Your task to perform on an android device: open app "YouTube Kids" (install if not already installed) and go to login screen Image 0: 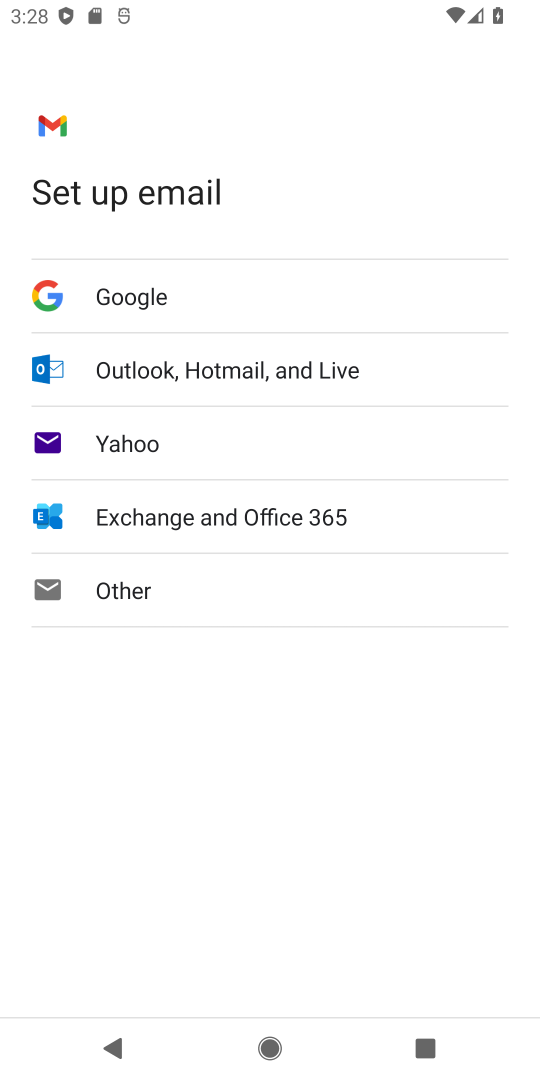
Step 0: press home button
Your task to perform on an android device: open app "YouTube Kids" (install if not already installed) and go to login screen Image 1: 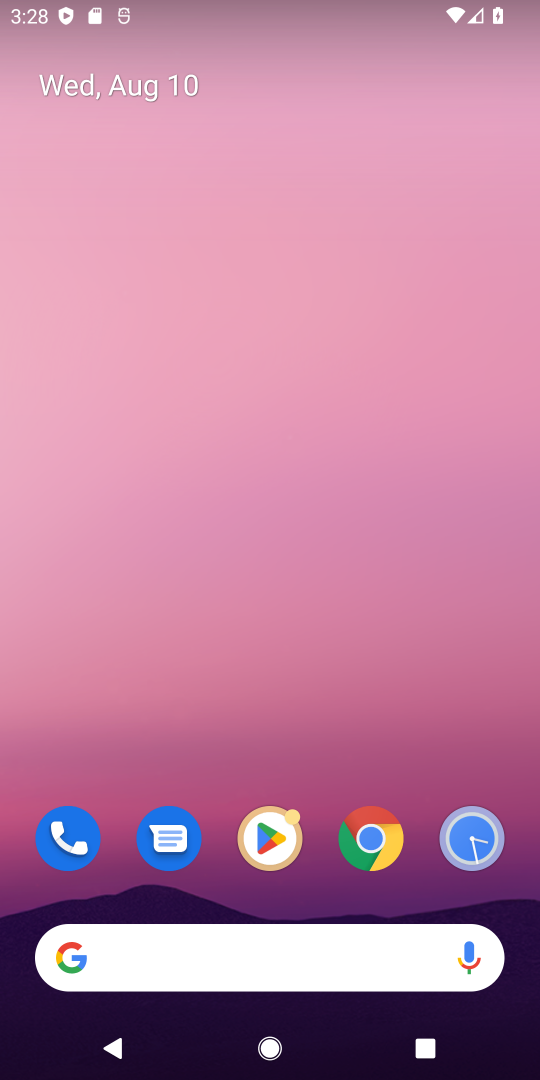
Step 1: click (270, 831)
Your task to perform on an android device: open app "YouTube Kids" (install if not already installed) and go to login screen Image 2: 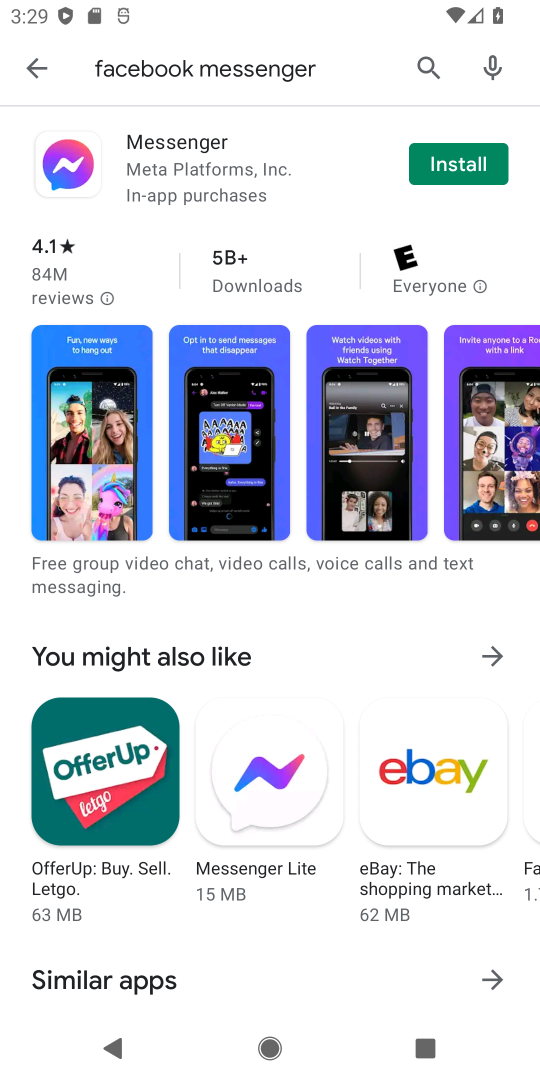
Step 2: click (425, 65)
Your task to perform on an android device: open app "YouTube Kids" (install if not already installed) and go to login screen Image 3: 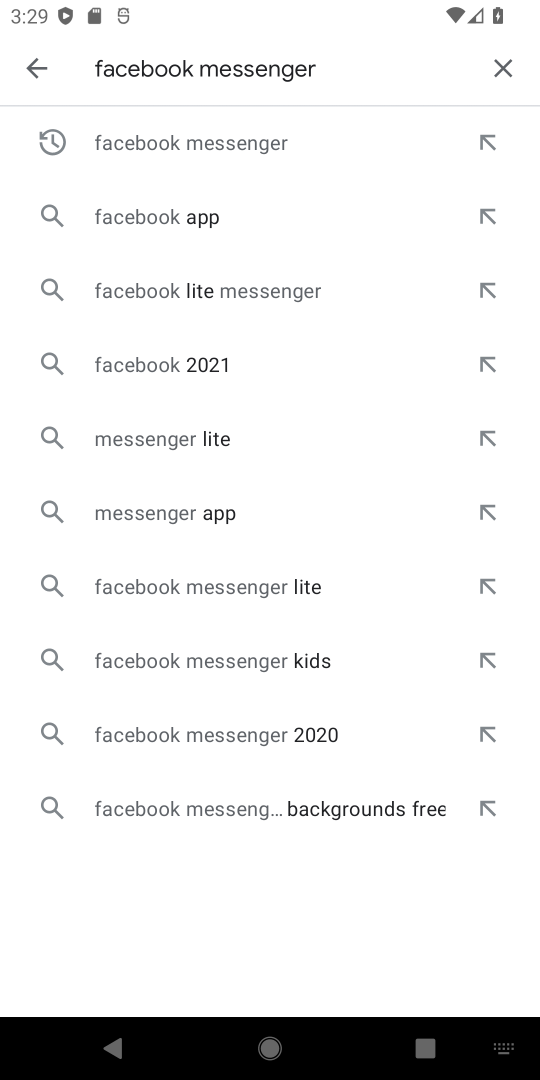
Step 3: click (502, 62)
Your task to perform on an android device: open app "YouTube Kids" (install if not already installed) and go to login screen Image 4: 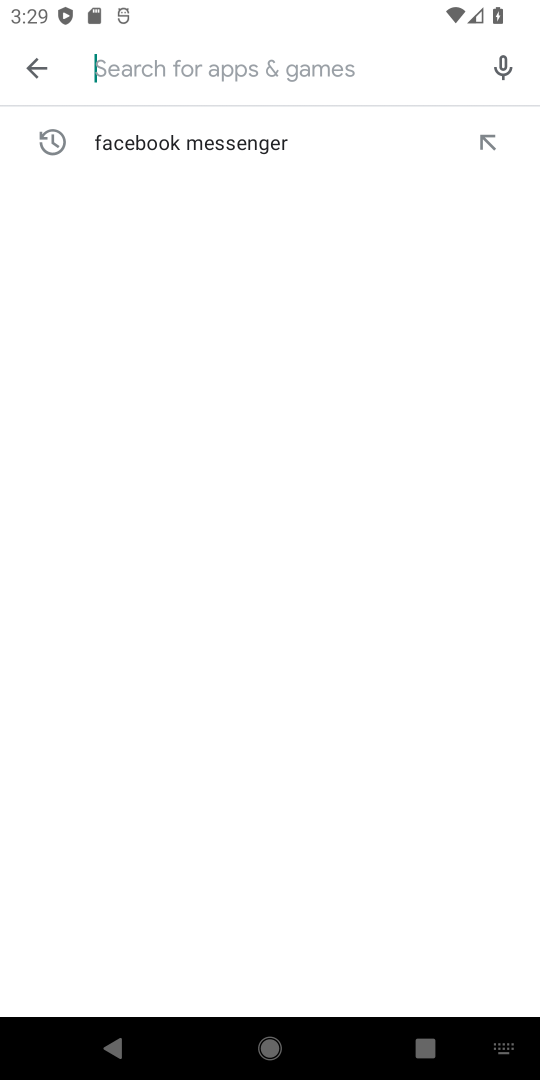
Step 4: type "YouTube Kids"
Your task to perform on an android device: open app "YouTube Kids" (install if not already installed) and go to login screen Image 5: 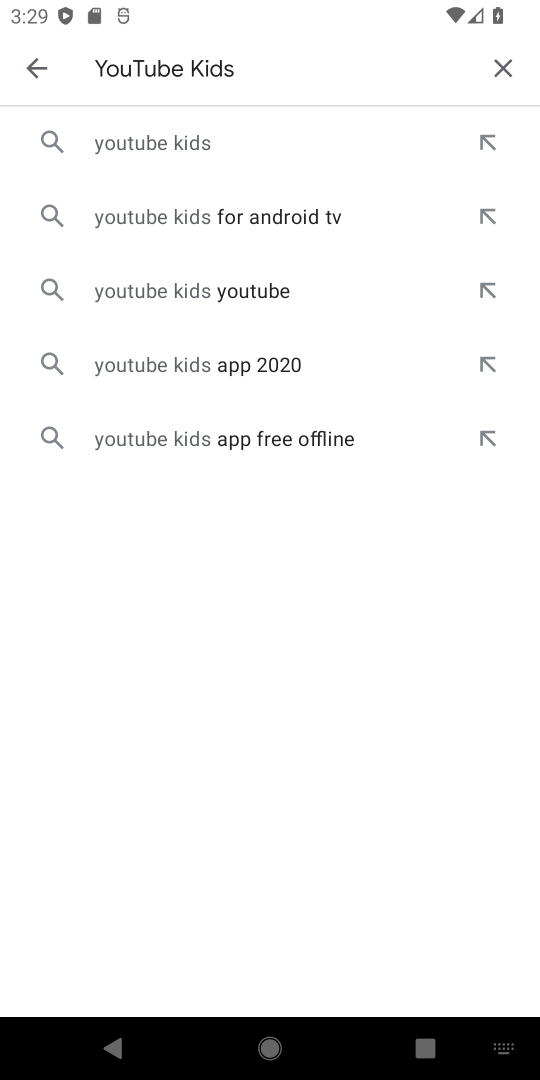
Step 5: click (175, 145)
Your task to perform on an android device: open app "YouTube Kids" (install if not already installed) and go to login screen Image 6: 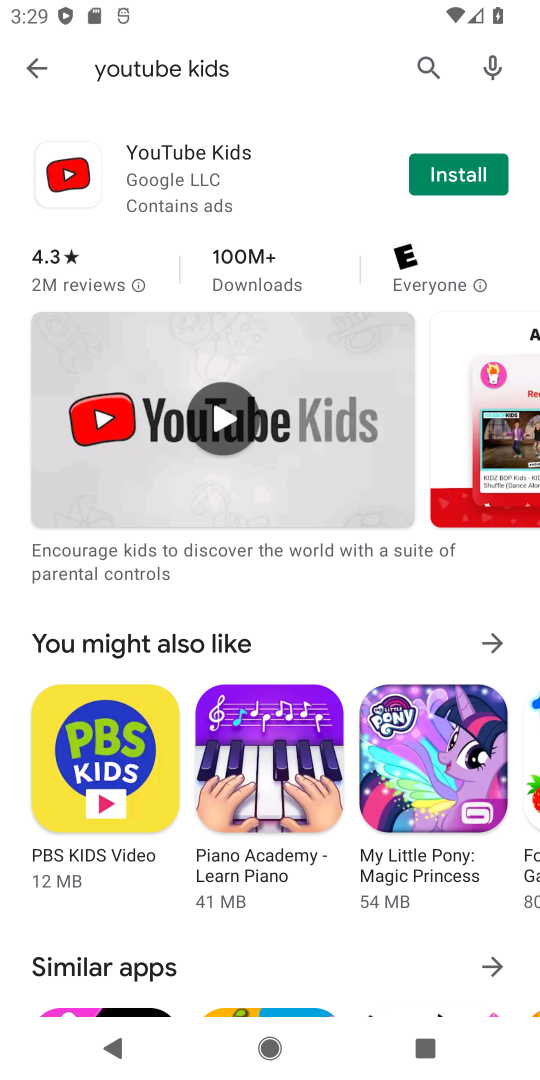
Step 6: click (461, 171)
Your task to perform on an android device: open app "YouTube Kids" (install if not already installed) and go to login screen Image 7: 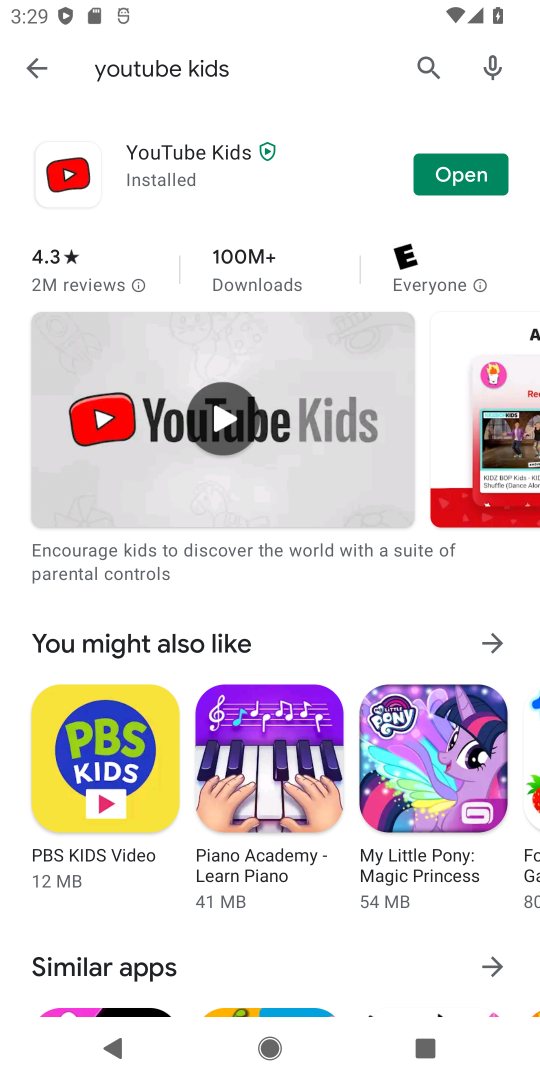
Step 7: click (469, 176)
Your task to perform on an android device: open app "YouTube Kids" (install if not already installed) and go to login screen Image 8: 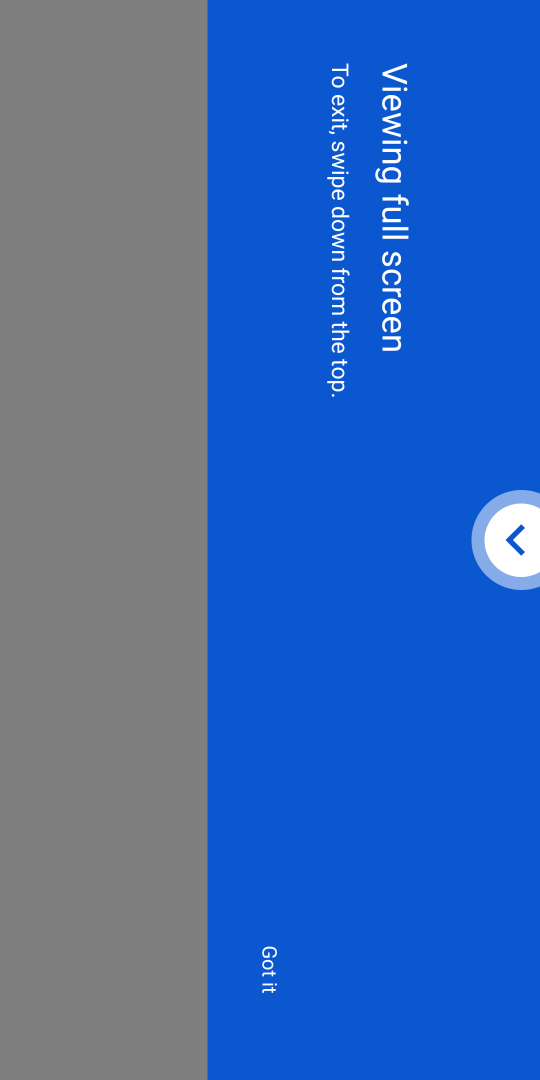
Step 8: click (262, 973)
Your task to perform on an android device: open app "YouTube Kids" (install if not already installed) and go to login screen Image 9: 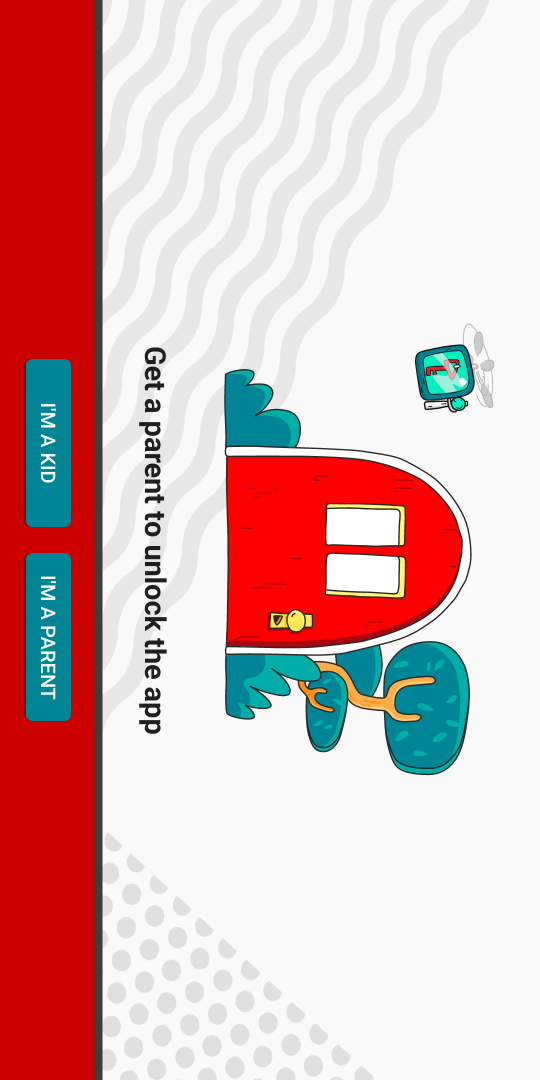
Step 9: task complete